Your task to perform on an android device: toggle javascript in the chrome app Image 0: 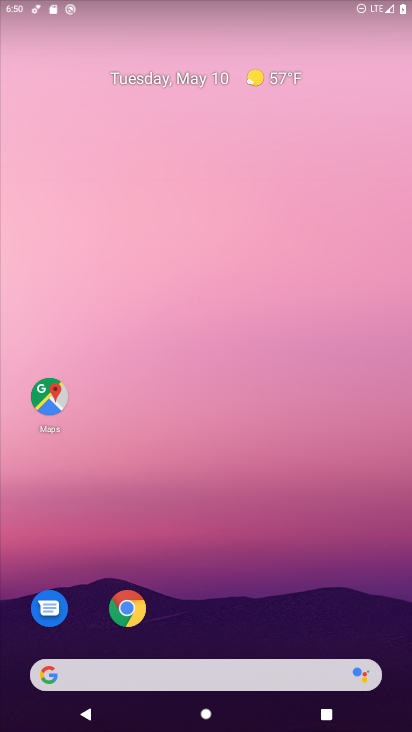
Step 0: drag from (298, 612) to (313, 18)
Your task to perform on an android device: toggle javascript in the chrome app Image 1: 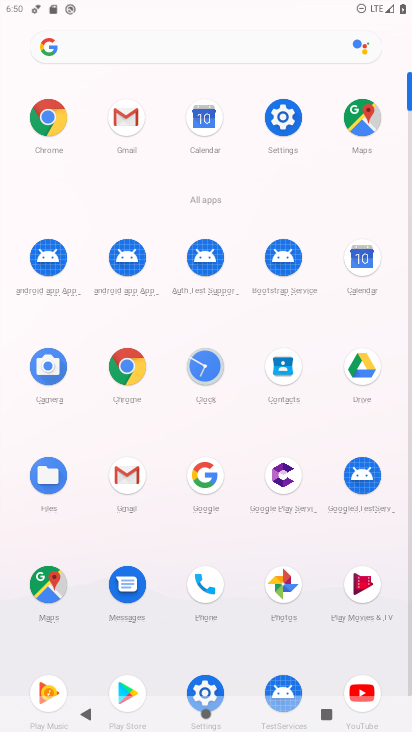
Step 1: click (130, 373)
Your task to perform on an android device: toggle javascript in the chrome app Image 2: 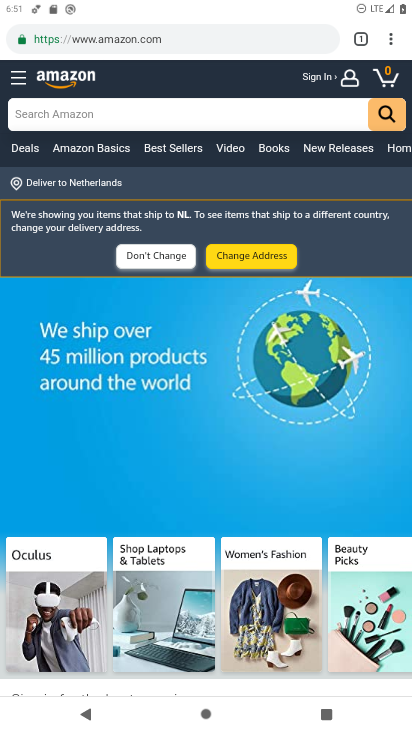
Step 2: press back button
Your task to perform on an android device: toggle javascript in the chrome app Image 3: 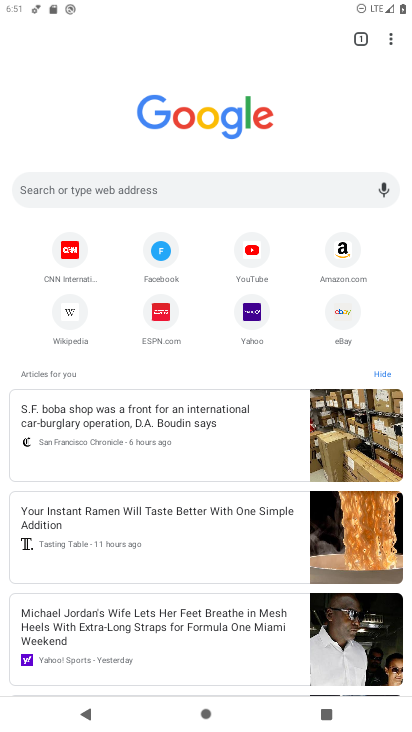
Step 3: click (388, 40)
Your task to perform on an android device: toggle javascript in the chrome app Image 4: 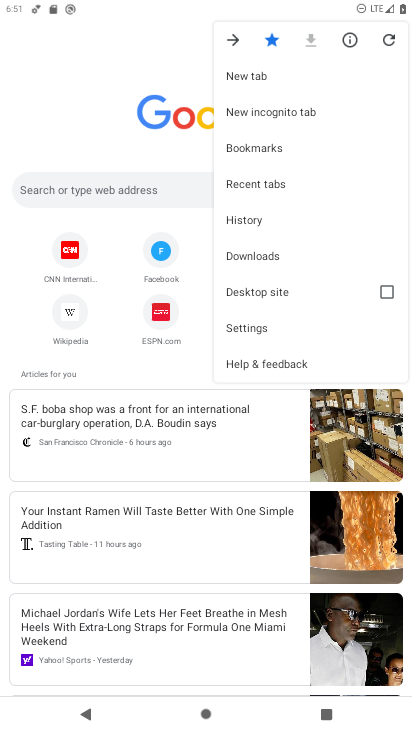
Step 4: click (288, 329)
Your task to perform on an android device: toggle javascript in the chrome app Image 5: 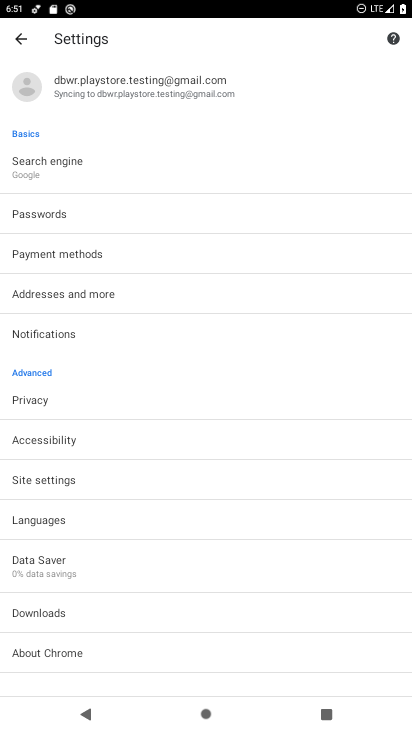
Step 5: click (83, 468)
Your task to perform on an android device: toggle javascript in the chrome app Image 6: 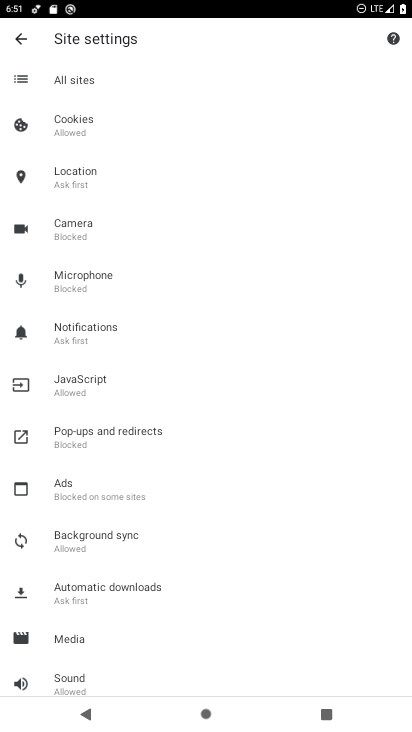
Step 6: click (79, 378)
Your task to perform on an android device: toggle javascript in the chrome app Image 7: 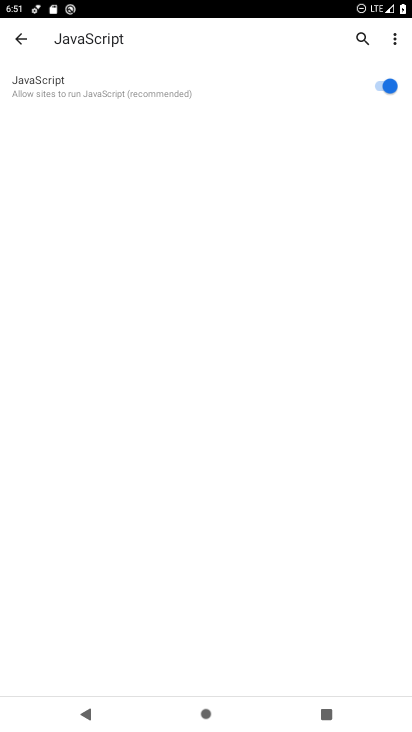
Step 7: click (354, 104)
Your task to perform on an android device: toggle javascript in the chrome app Image 8: 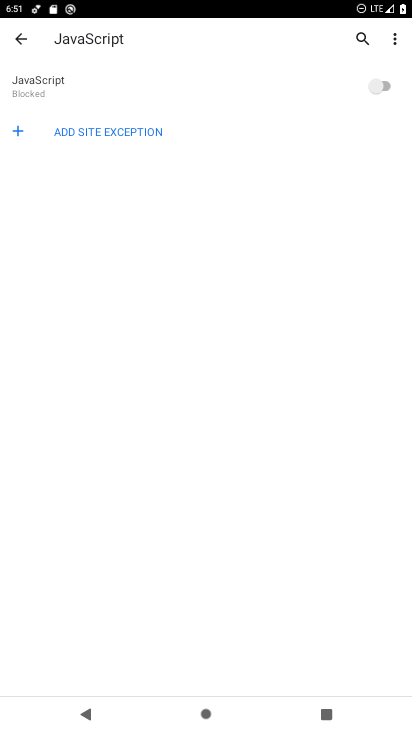
Step 8: task complete